Your task to perform on an android device: delete location history Image 0: 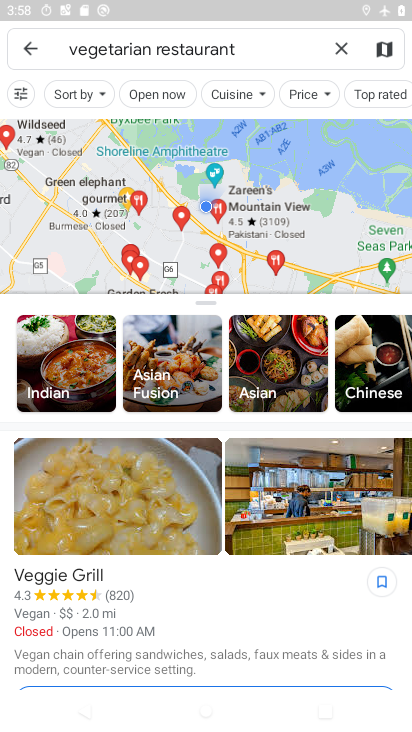
Step 0: press home button
Your task to perform on an android device: delete location history Image 1: 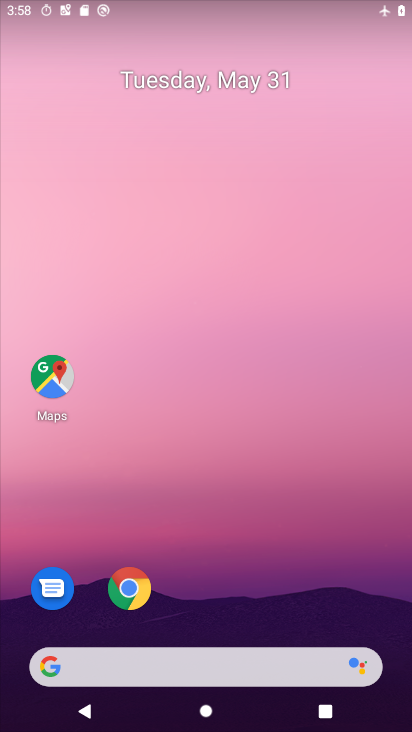
Step 1: drag from (273, 642) to (213, 164)
Your task to perform on an android device: delete location history Image 2: 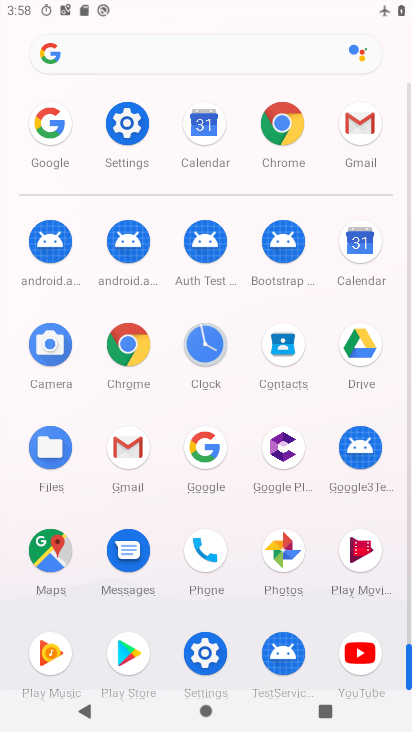
Step 2: click (127, 144)
Your task to perform on an android device: delete location history Image 3: 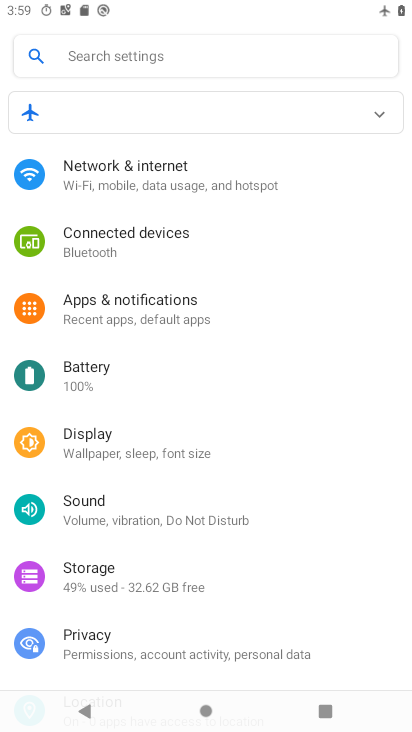
Step 3: drag from (183, 578) to (176, 206)
Your task to perform on an android device: delete location history Image 4: 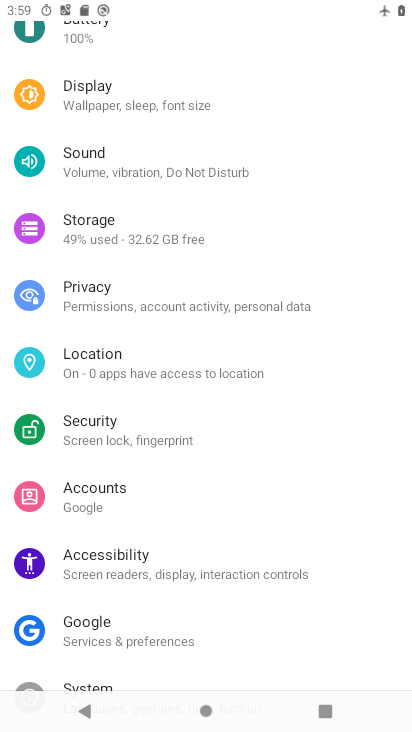
Step 4: click (195, 367)
Your task to perform on an android device: delete location history Image 5: 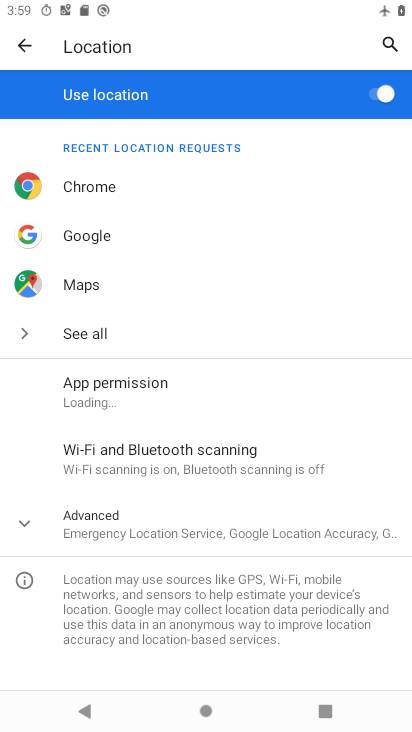
Step 5: click (219, 535)
Your task to perform on an android device: delete location history Image 6: 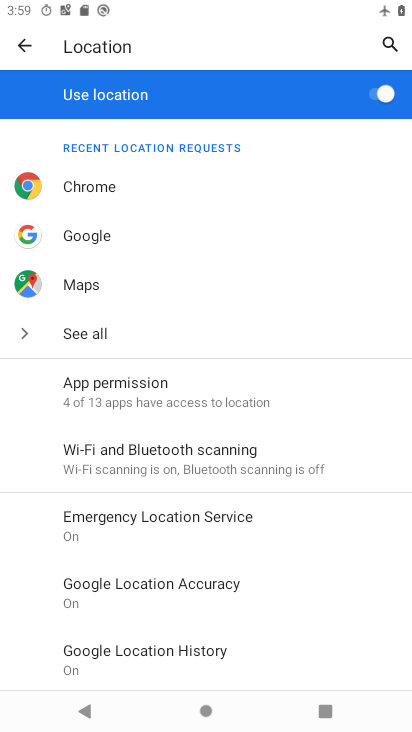
Step 6: click (198, 665)
Your task to perform on an android device: delete location history Image 7: 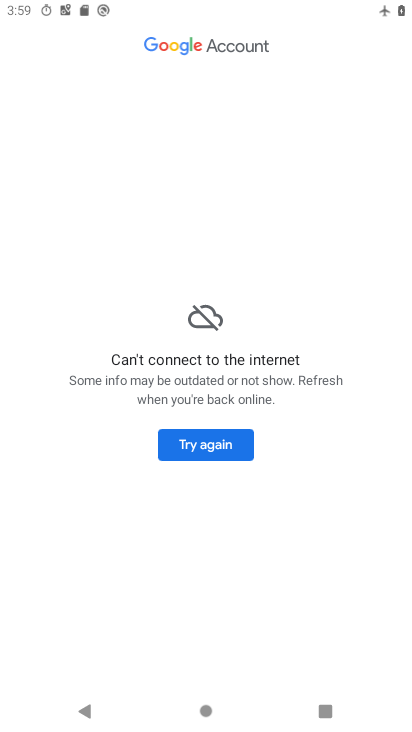
Step 7: click (228, 445)
Your task to perform on an android device: delete location history Image 8: 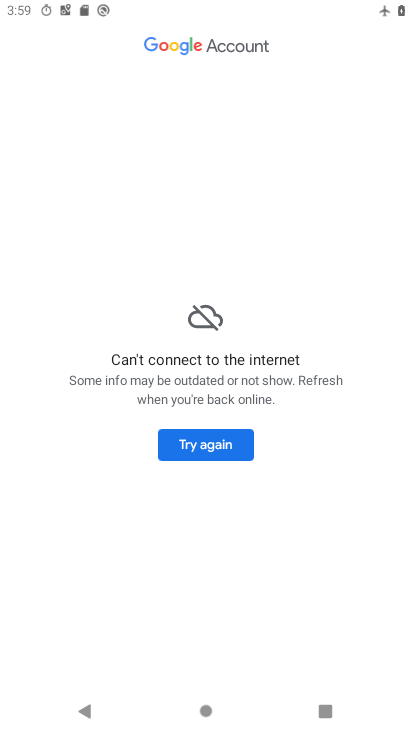
Step 8: click (230, 454)
Your task to perform on an android device: delete location history Image 9: 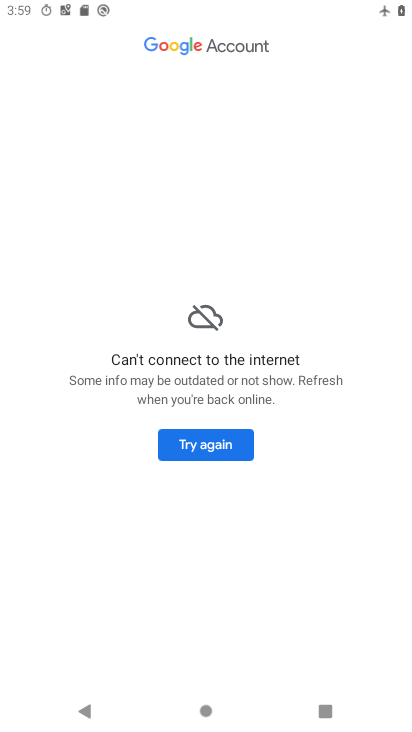
Step 9: task complete